Your task to perform on an android device: open app "TextNow: Call + Text Unlimited" (install if not already installed) Image 0: 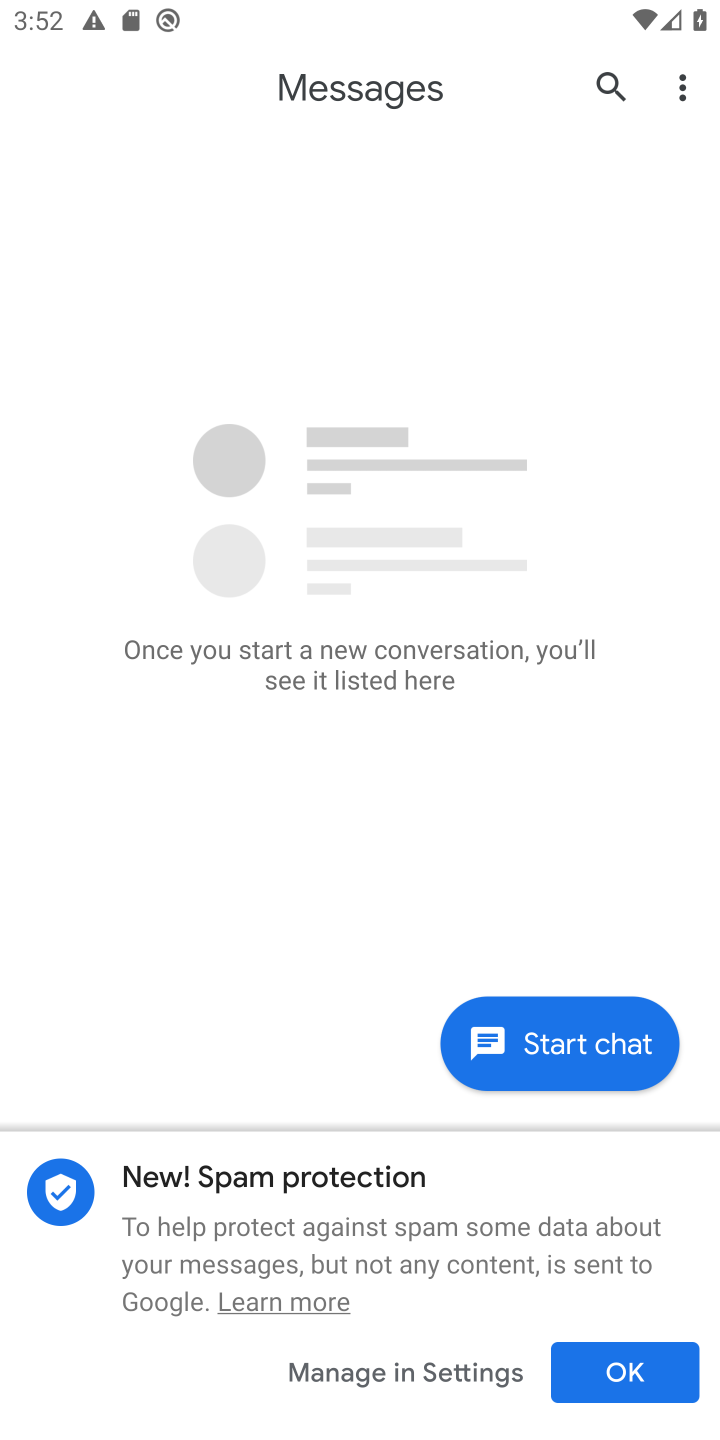
Step 0: press home button
Your task to perform on an android device: open app "TextNow: Call + Text Unlimited" (install if not already installed) Image 1: 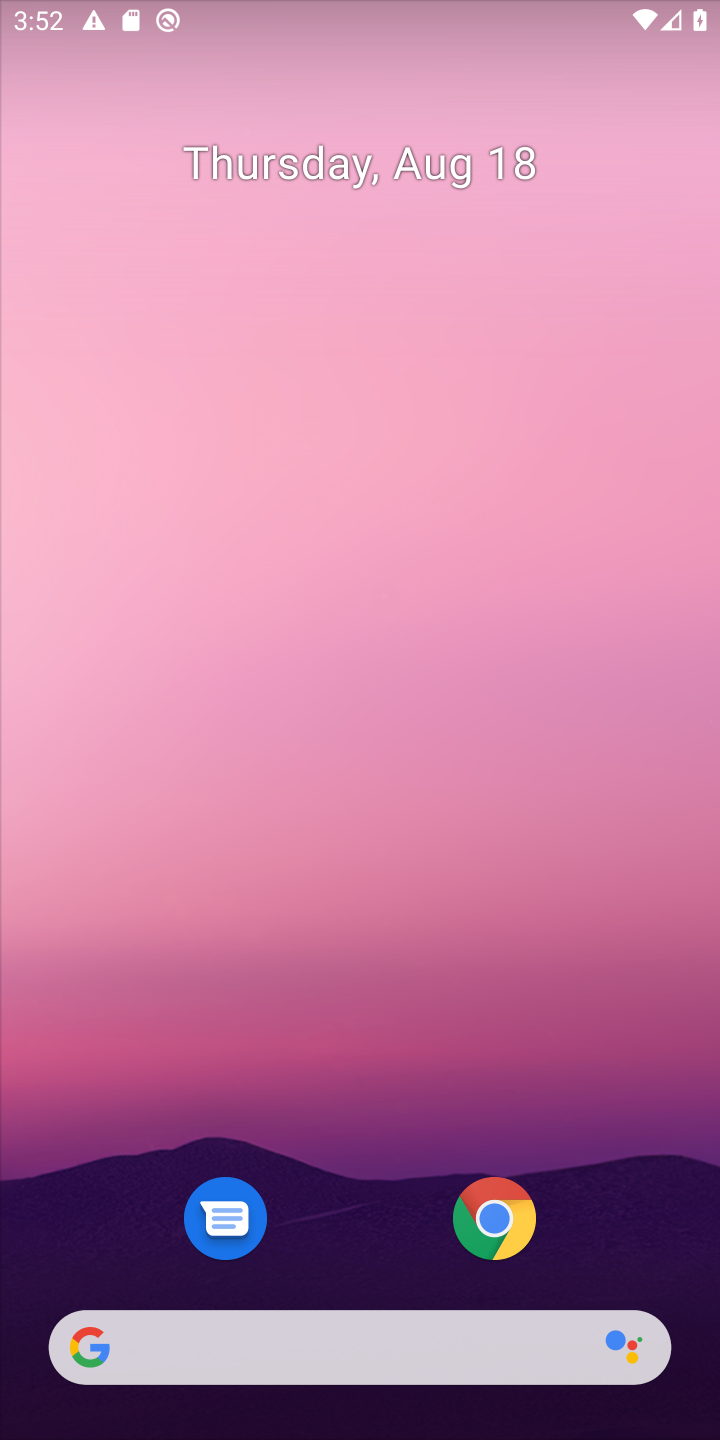
Step 1: drag from (415, 1154) to (383, 333)
Your task to perform on an android device: open app "TextNow: Call + Text Unlimited" (install if not already installed) Image 2: 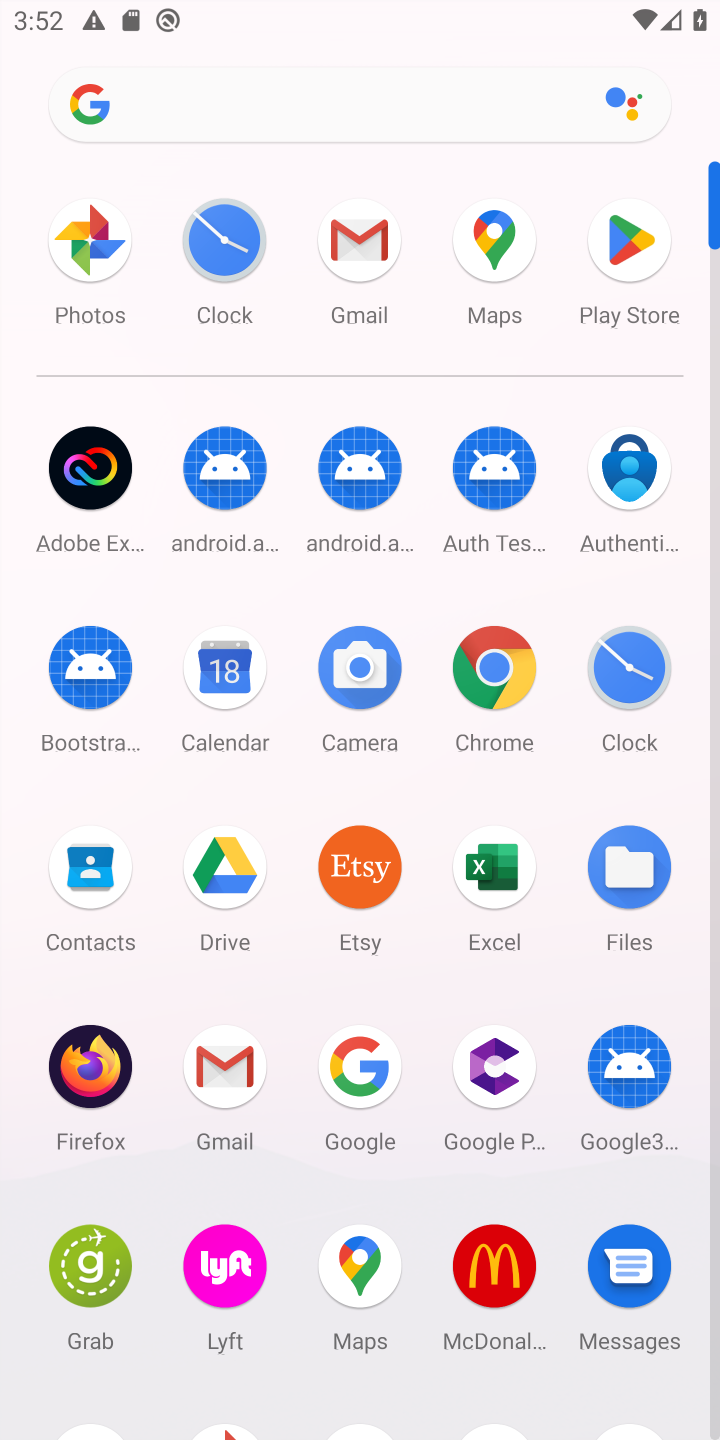
Step 2: click (606, 280)
Your task to perform on an android device: open app "TextNow: Call + Text Unlimited" (install if not already installed) Image 3: 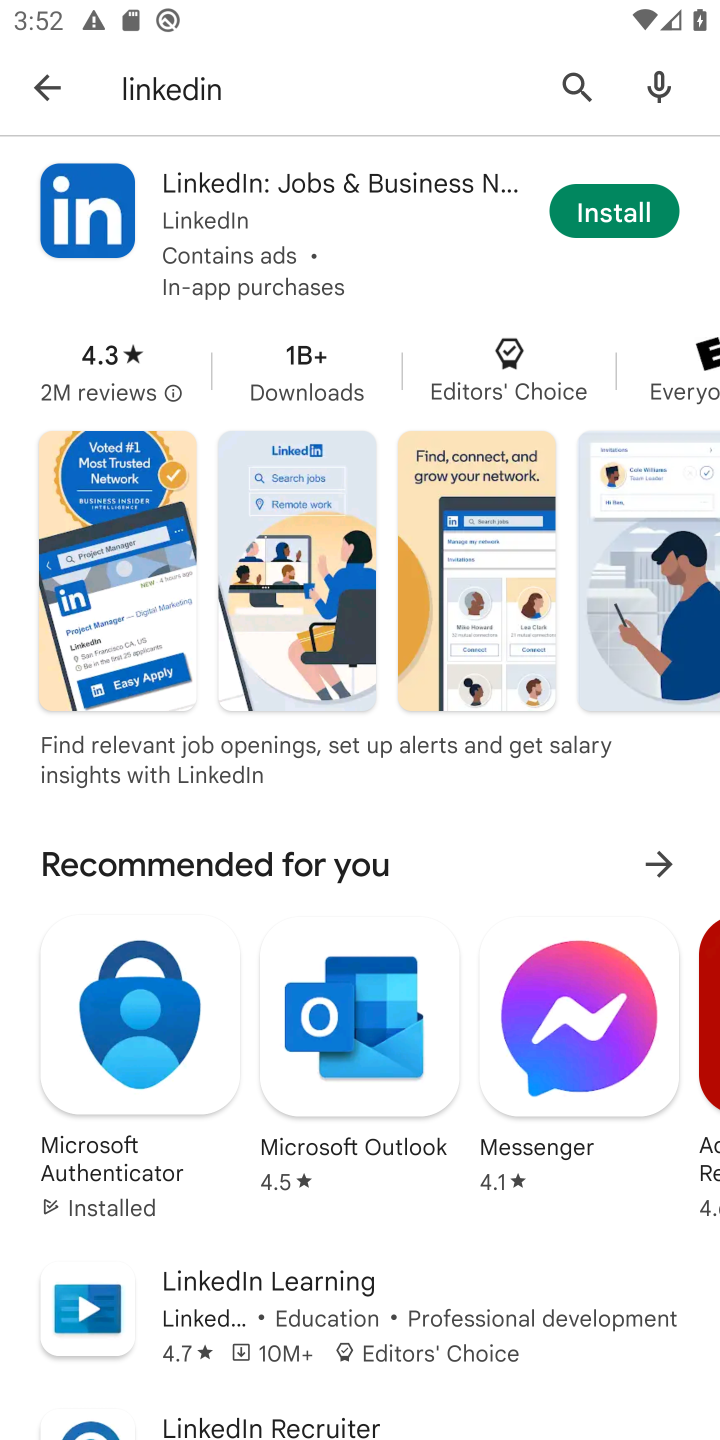
Step 3: click (572, 87)
Your task to perform on an android device: open app "TextNow: Call + Text Unlimited" (install if not already installed) Image 4: 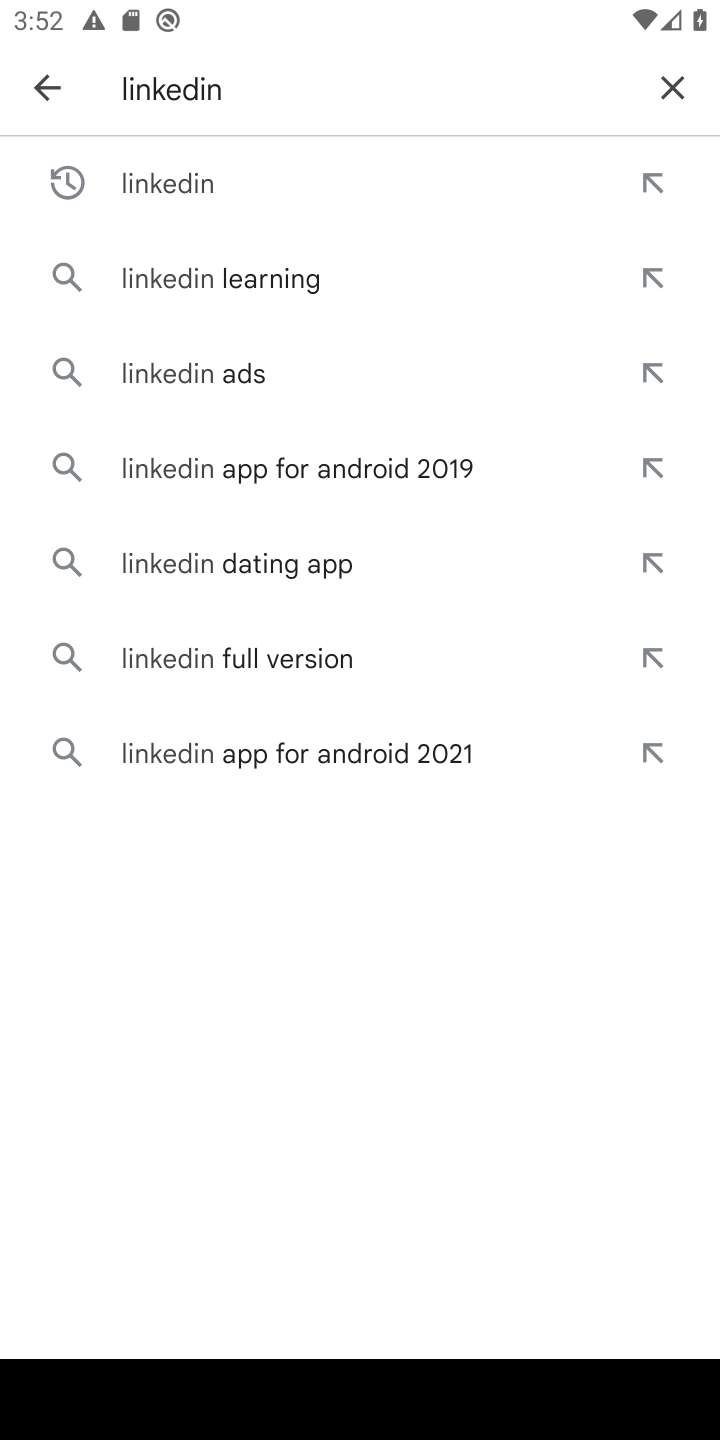
Step 4: click (684, 90)
Your task to perform on an android device: open app "TextNow: Call + Text Unlimited" (install if not already installed) Image 5: 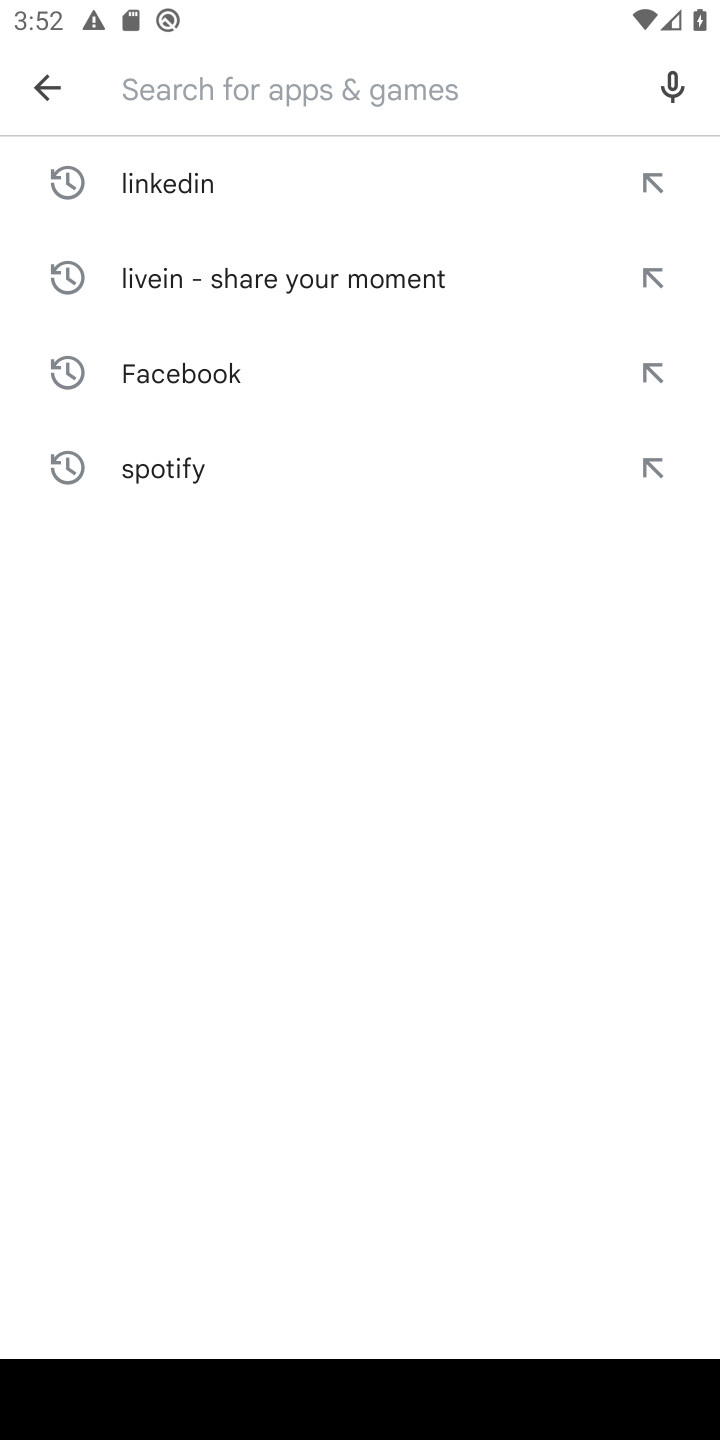
Step 5: type "TextNow: Call + Text Unlimited"
Your task to perform on an android device: open app "TextNow: Call + Text Unlimited" (install if not already installed) Image 6: 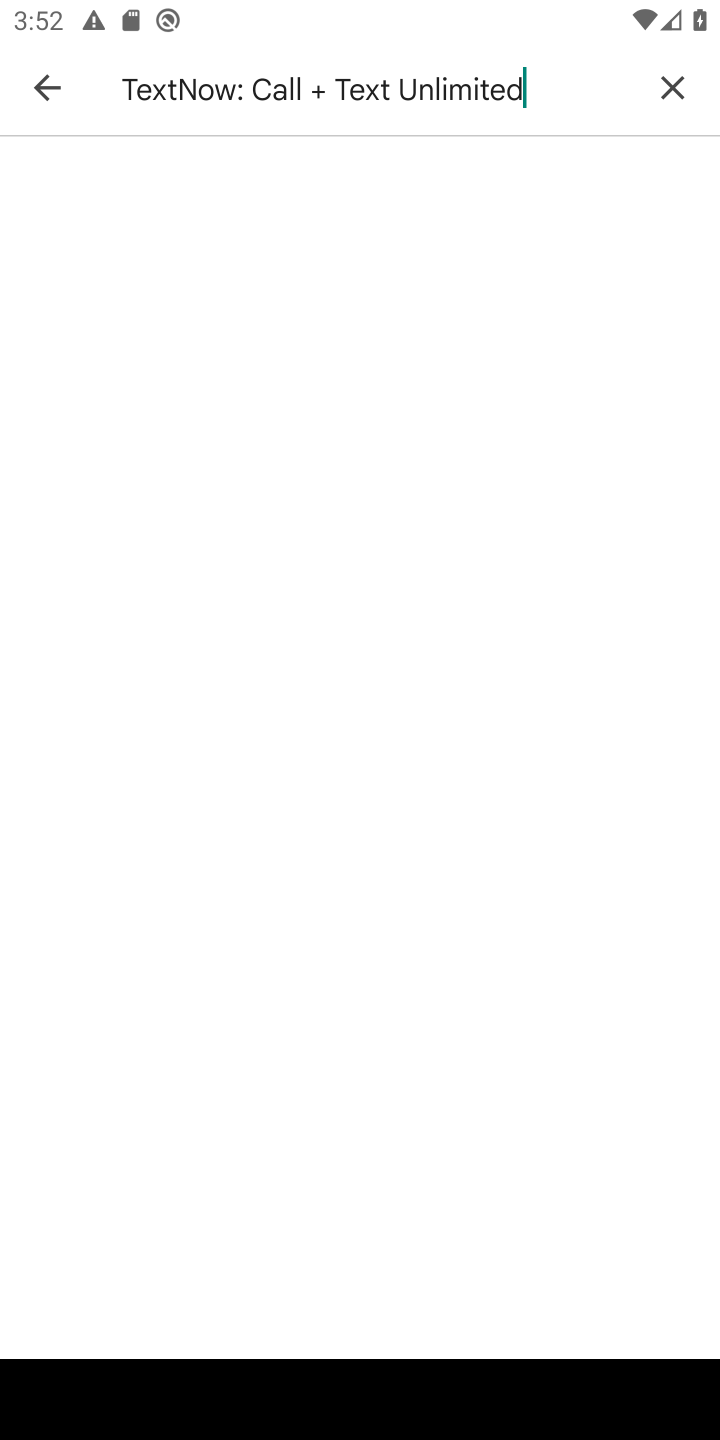
Step 6: type ""
Your task to perform on an android device: open app "TextNow: Call + Text Unlimited" (install if not already installed) Image 7: 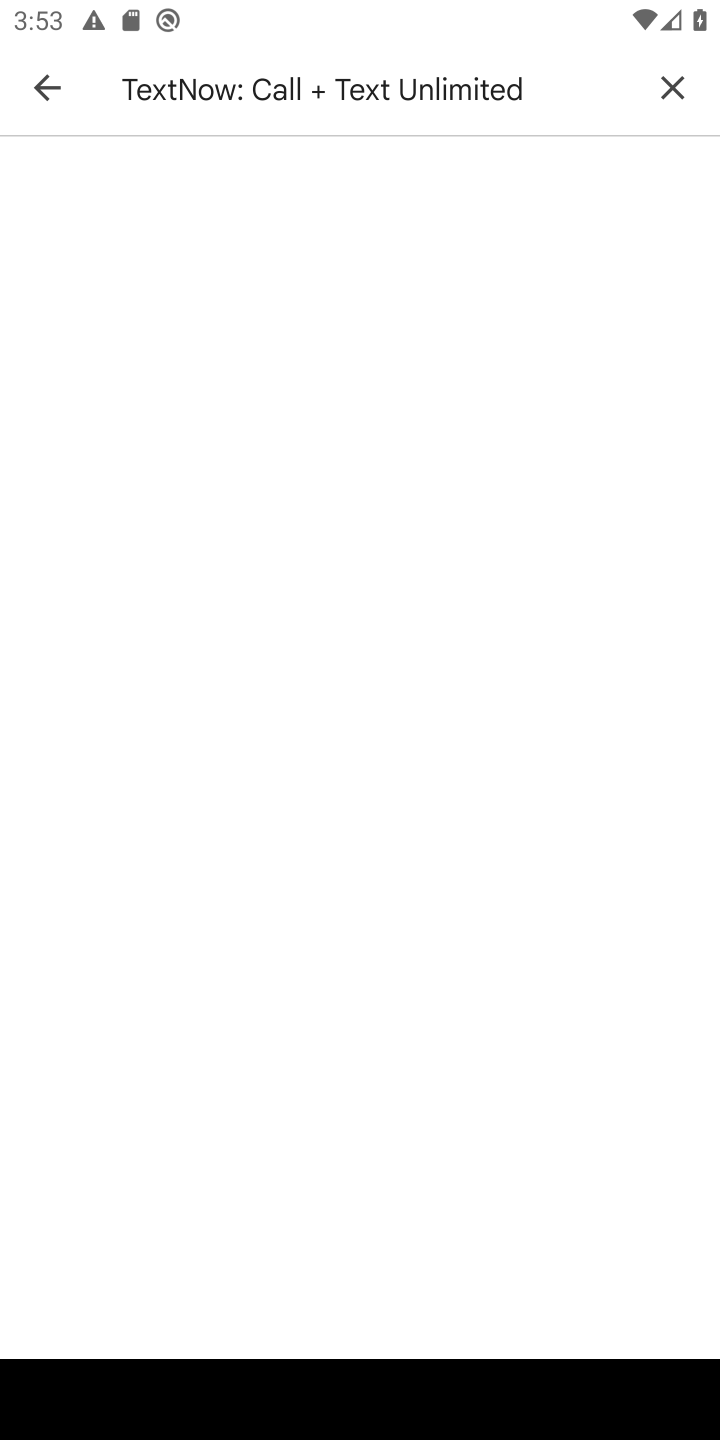
Step 7: press home button
Your task to perform on an android device: open app "TextNow: Call + Text Unlimited" (install if not already installed) Image 8: 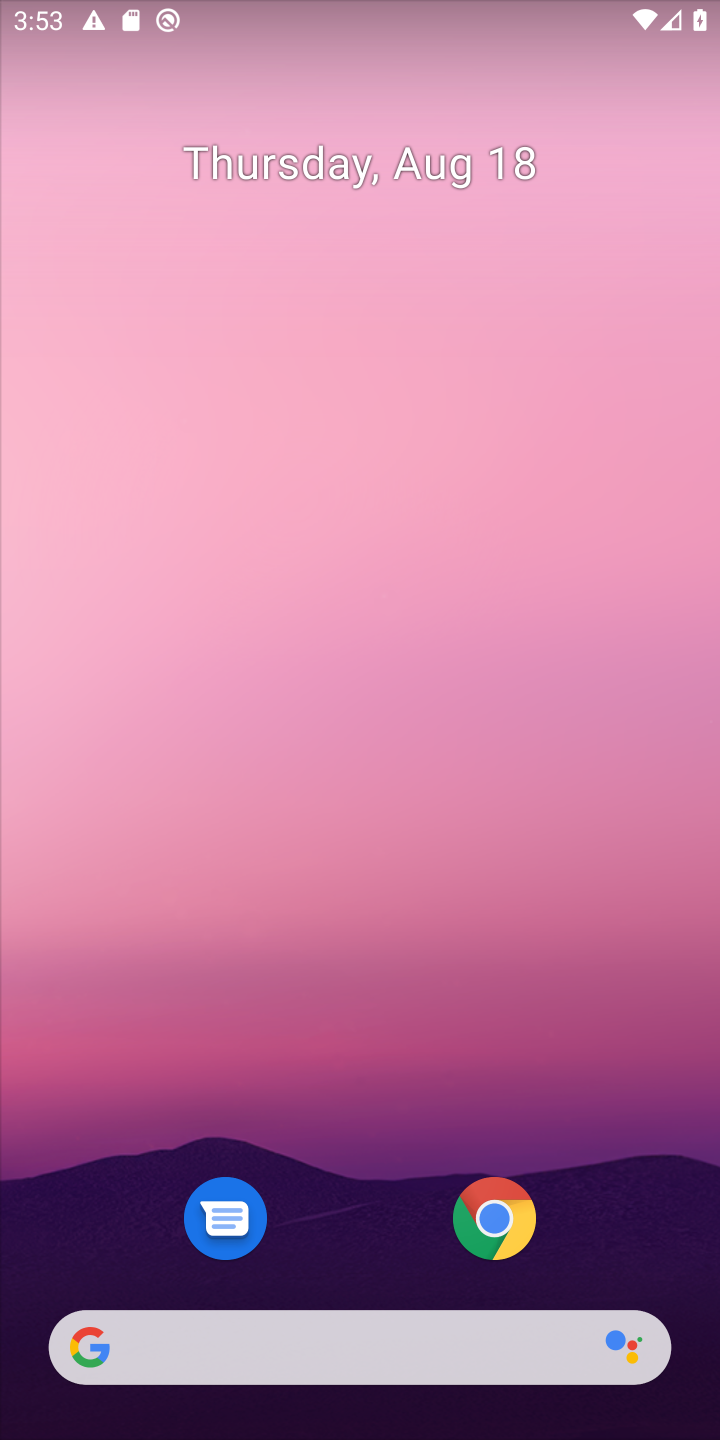
Step 8: drag from (375, 1088) to (472, 353)
Your task to perform on an android device: open app "TextNow: Call + Text Unlimited" (install if not already installed) Image 9: 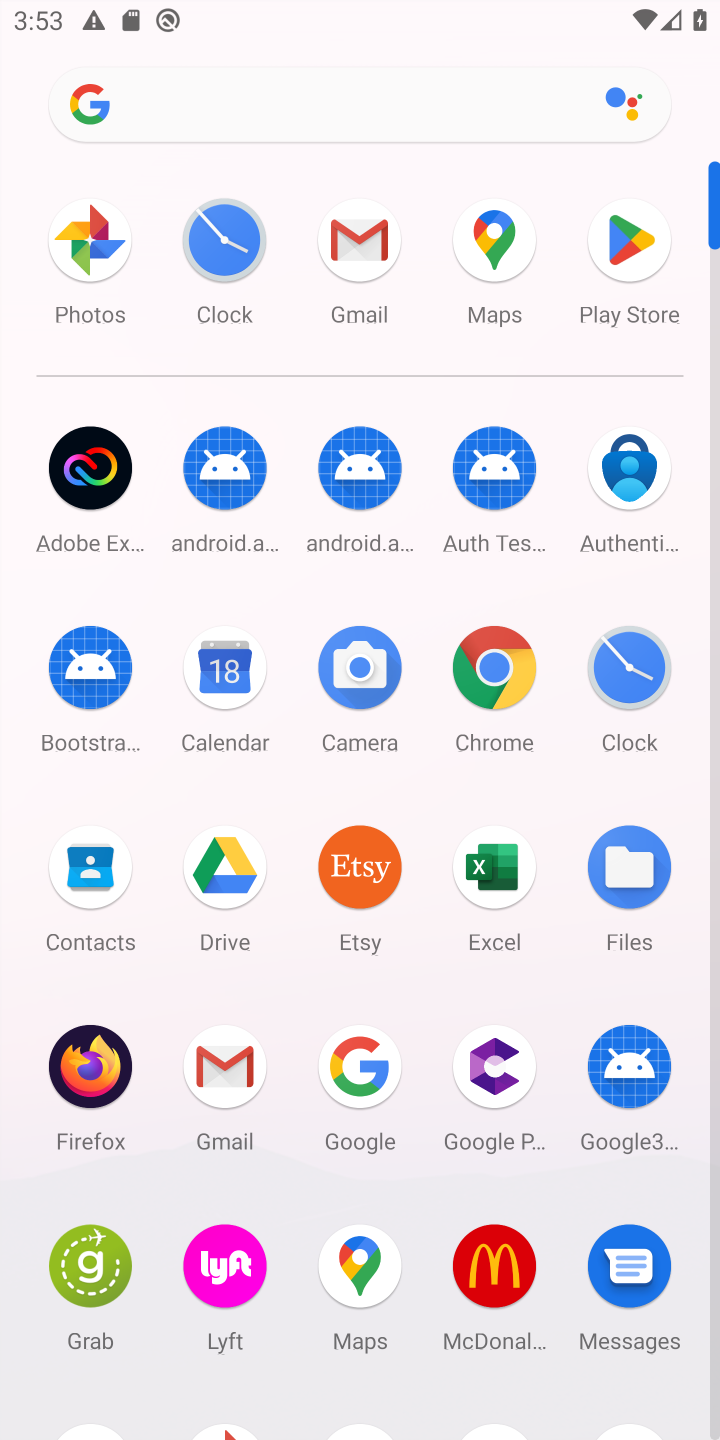
Step 9: click (598, 267)
Your task to perform on an android device: open app "TextNow: Call + Text Unlimited" (install if not already installed) Image 10: 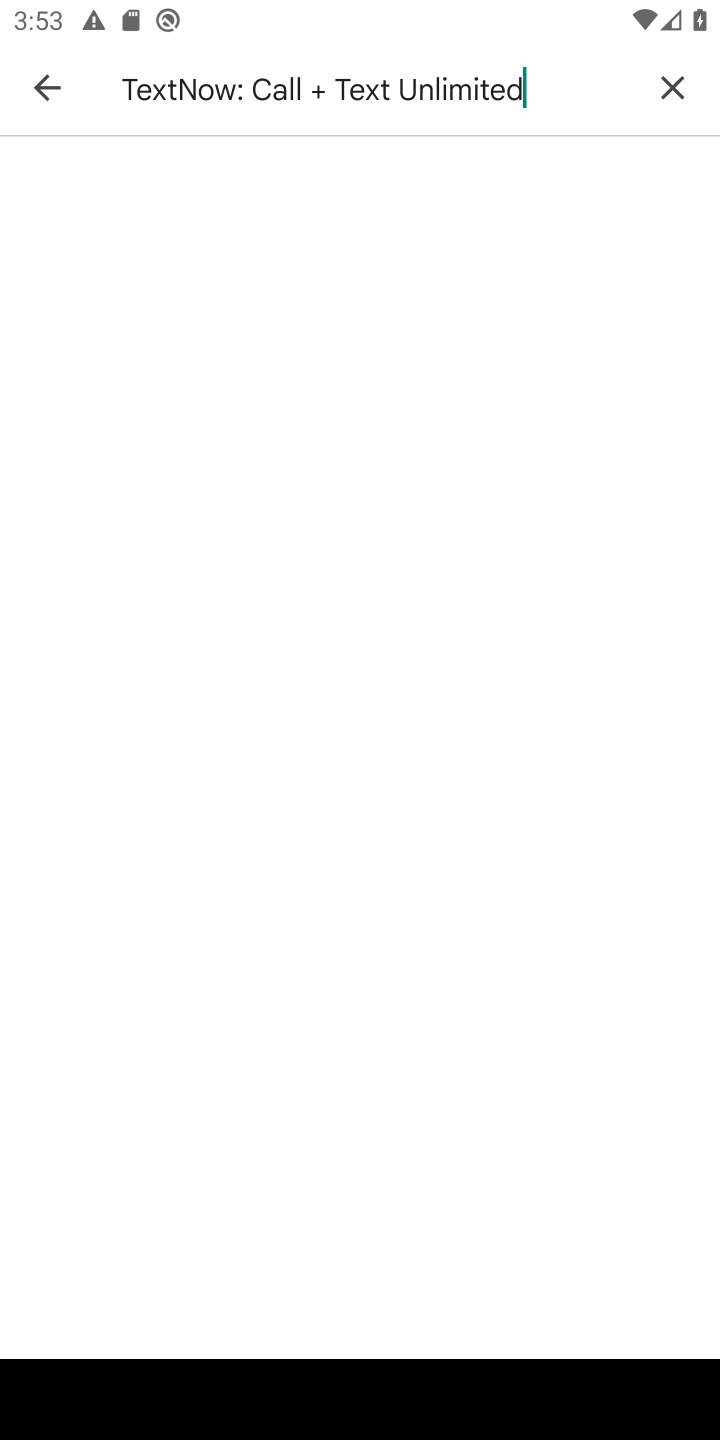
Step 10: task complete